Your task to perform on an android device: turn on airplane mode Image 0: 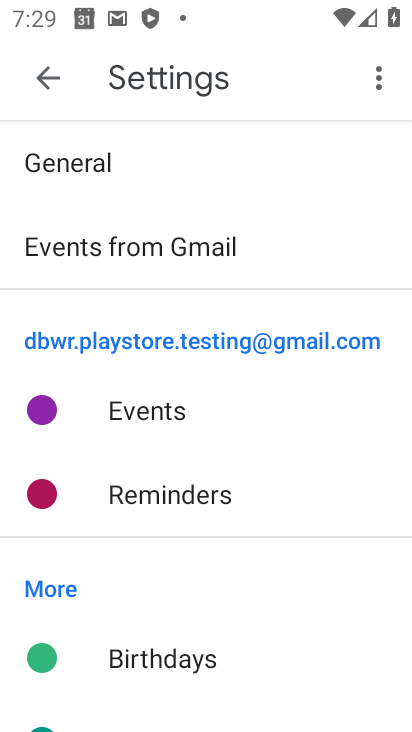
Step 0: press back button
Your task to perform on an android device: turn on airplane mode Image 1: 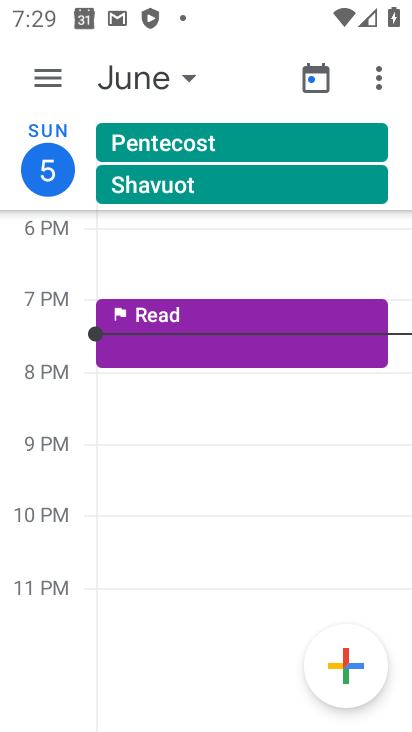
Step 1: press back button
Your task to perform on an android device: turn on airplane mode Image 2: 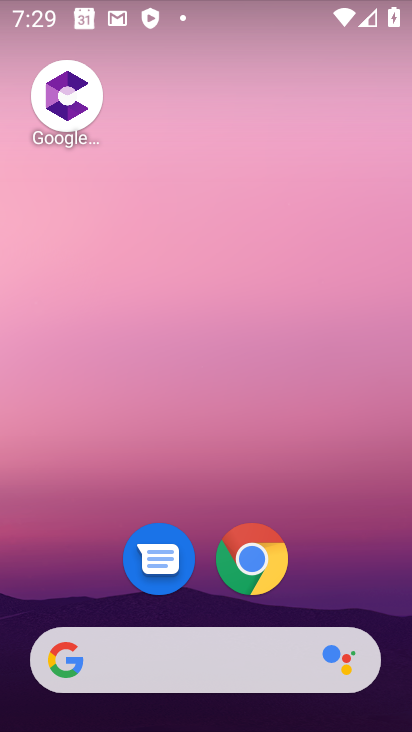
Step 2: drag from (324, 571) to (257, 0)
Your task to perform on an android device: turn on airplane mode Image 3: 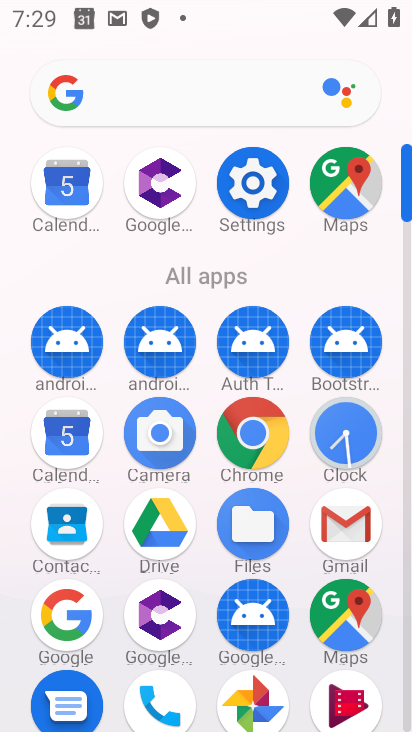
Step 3: click (257, 180)
Your task to perform on an android device: turn on airplane mode Image 4: 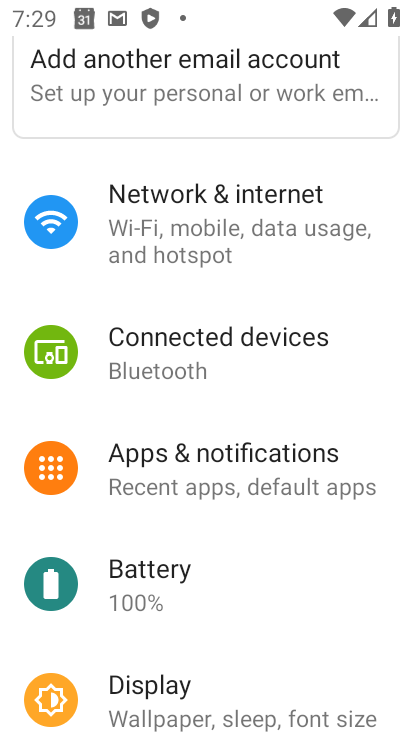
Step 4: click (235, 208)
Your task to perform on an android device: turn on airplane mode Image 5: 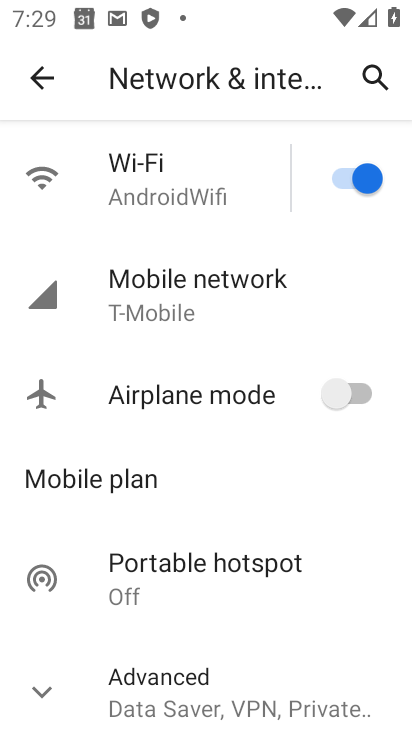
Step 5: click (345, 397)
Your task to perform on an android device: turn on airplane mode Image 6: 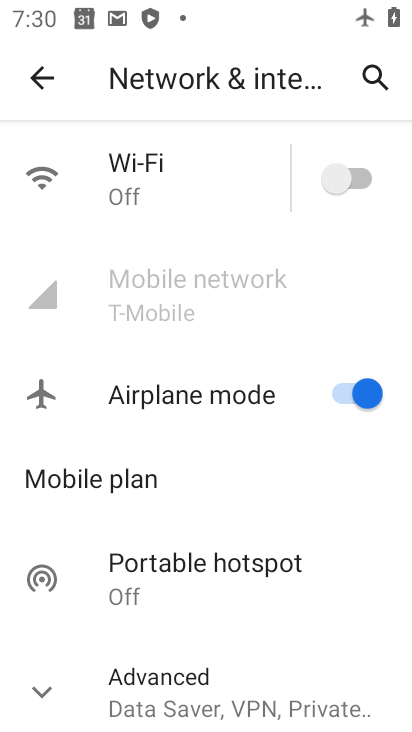
Step 6: task complete